Your task to perform on an android device: clear history in the chrome app Image 0: 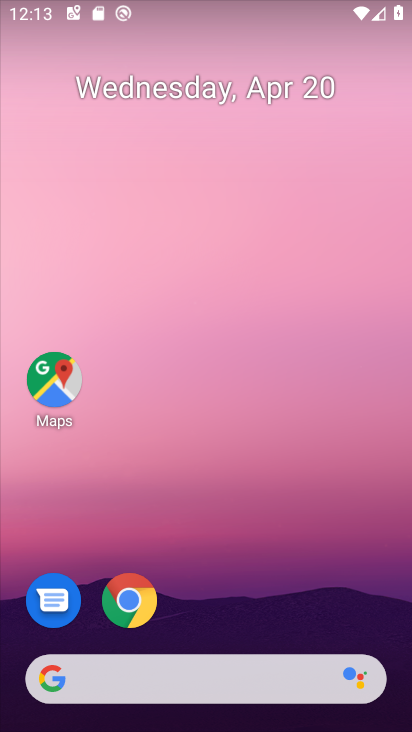
Step 0: drag from (381, 595) to (409, 145)
Your task to perform on an android device: clear history in the chrome app Image 1: 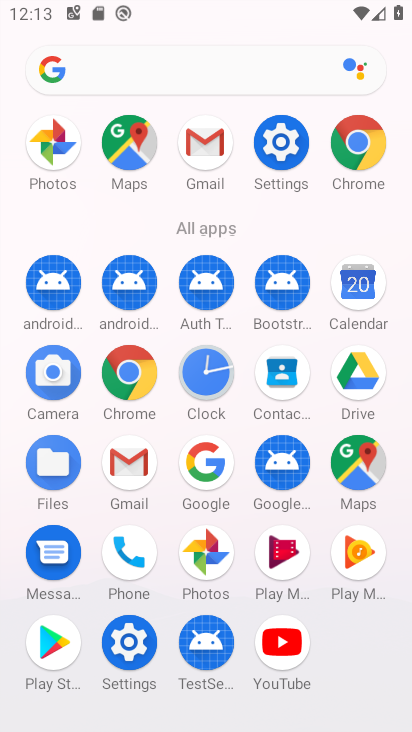
Step 1: click (135, 389)
Your task to perform on an android device: clear history in the chrome app Image 2: 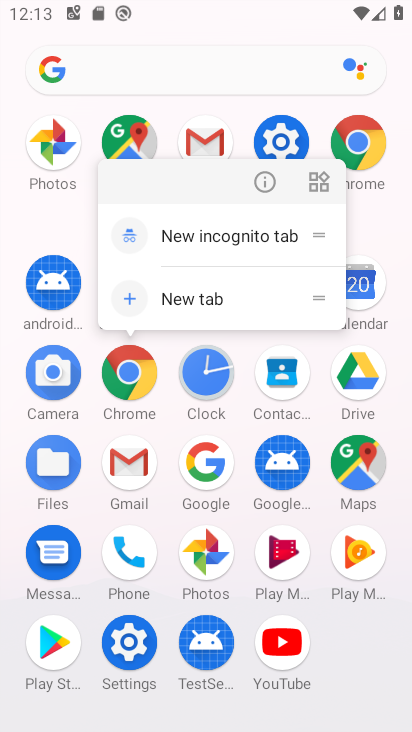
Step 2: click (135, 389)
Your task to perform on an android device: clear history in the chrome app Image 3: 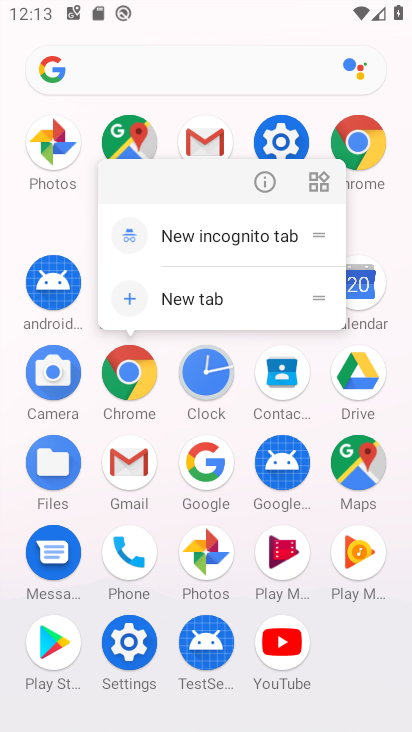
Step 3: click (139, 406)
Your task to perform on an android device: clear history in the chrome app Image 4: 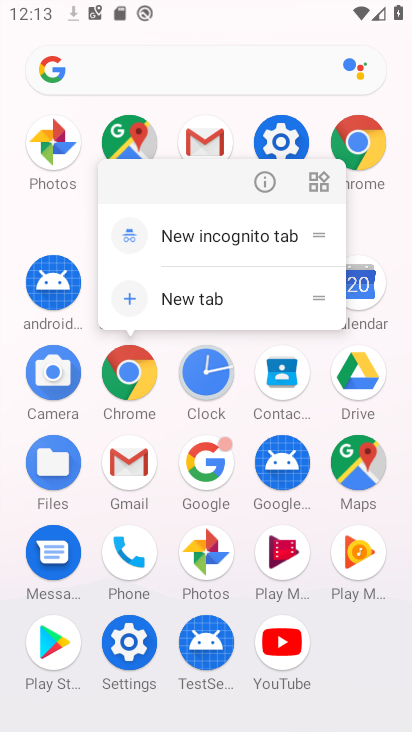
Step 4: click (127, 358)
Your task to perform on an android device: clear history in the chrome app Image 5: 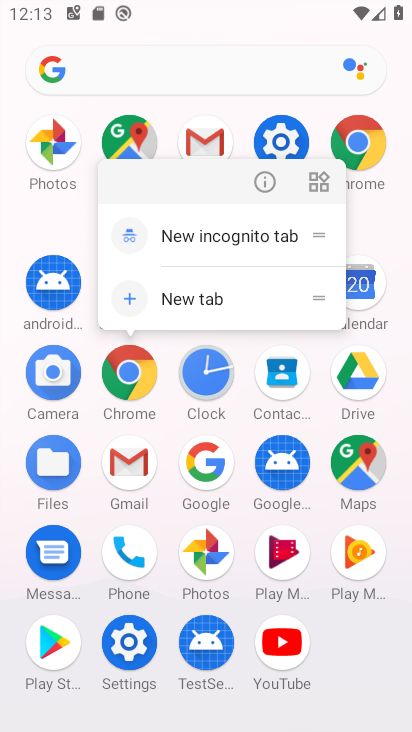
Step 5: click (117, 387)
Your task to perform on an android device: clear history in the chrome app Image 6: 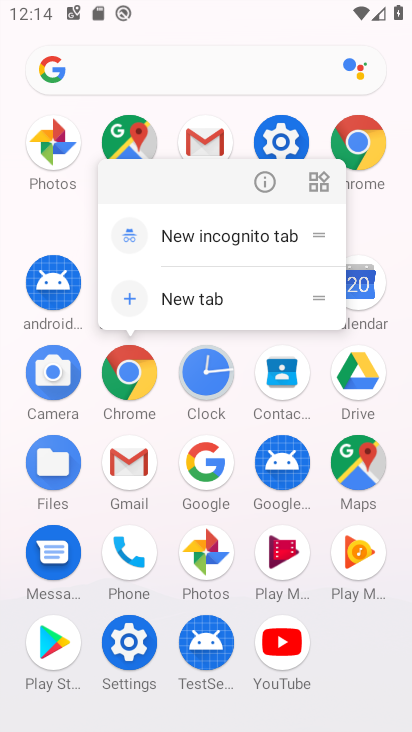
Step 6: click (133, 406)
Your task to perform on an android device: clear history in the chrome app Image 7: 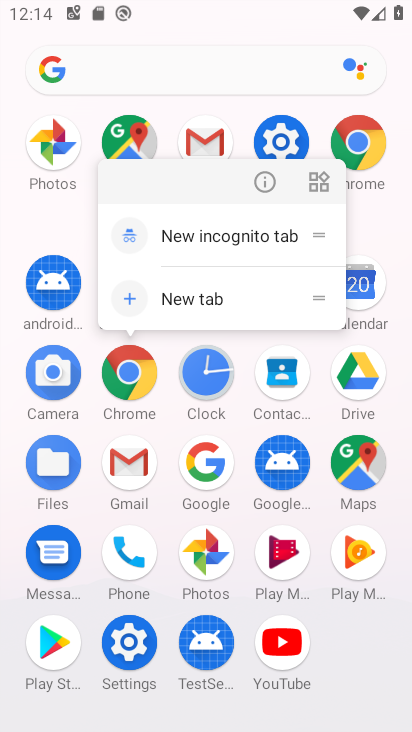
Step 7: click (130, 413)
Your task to perform on an android device: clear history in the chrome app Image 8: 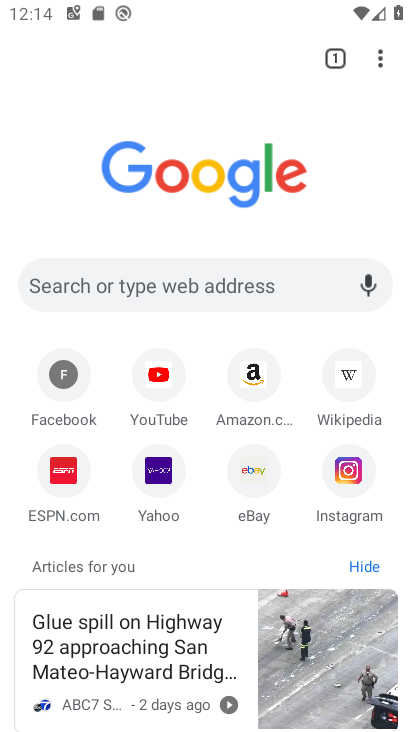
Step 8: task complete